Your task to perform on an android device: What's the weather going to be tomorrow? Image 0: 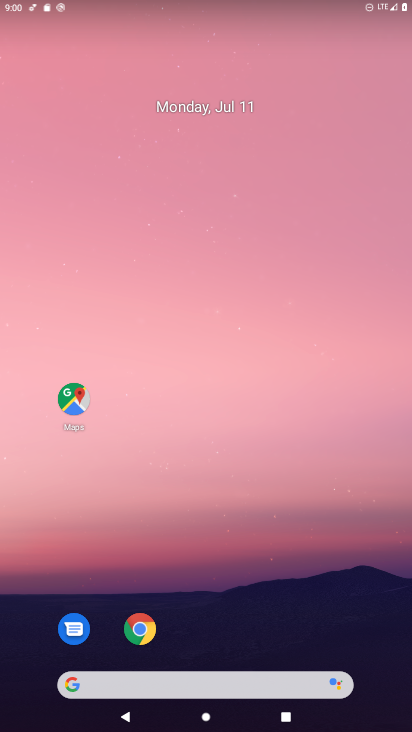
Step 0: click (237, 691)
Your task to perform on an android device: What's the weather going to be tomorrow? Image 1: 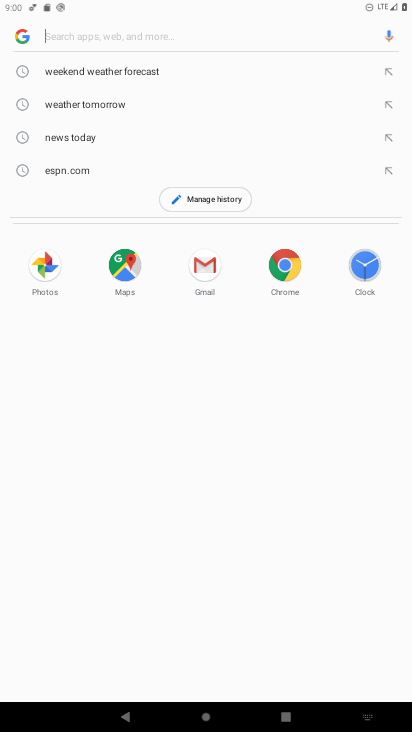
Step 1: click (167, 113)
Your task to perform on an android device: What's the weather going to be tomorrow? Image 2: 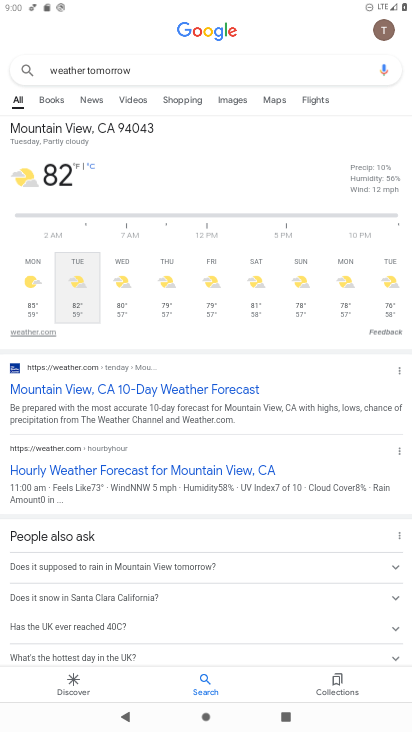
Step 2: task complete